Your task to perform on an android device: Go to accessibility settings Image 0: 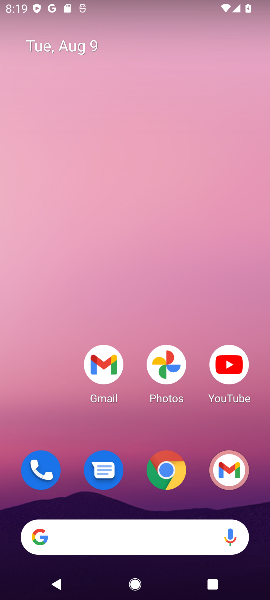
Step 0: drag from (147, 474) to (147, 179)
Your task to perform on an android device: Go to accessibility settings Image 1: 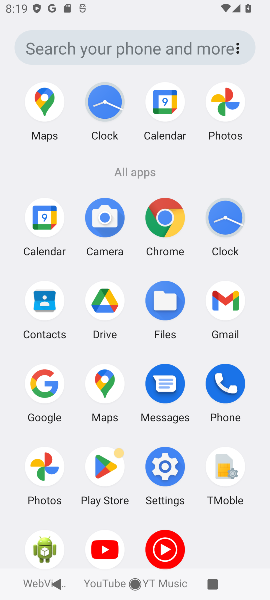
Step 1: click (162, 471)
Your task to perform on an android device: Go to accessibility settings Image 2: 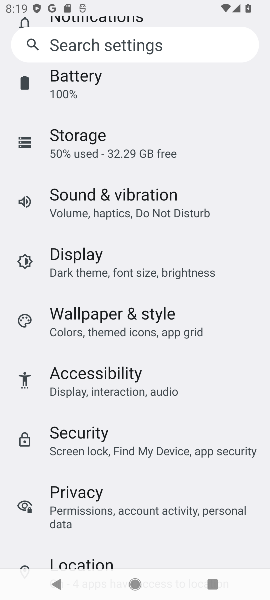
Step 2: click (164, 371)
Your task to perform on an android device: Go to accessibility settings Image 3: 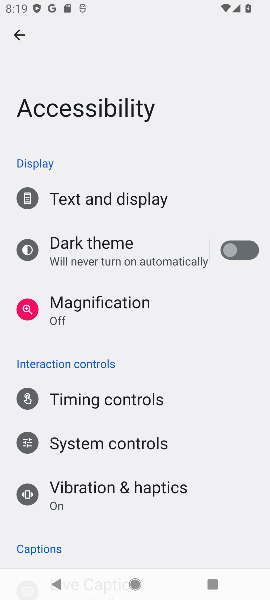
Step 3: task complete